Your task to perform on an android device: What's on my calendar today? Image 0: 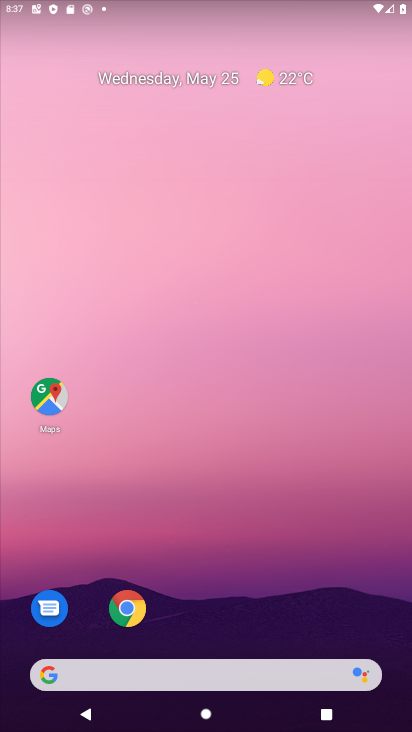
Step 0: drag from (230, 613) to (221, 184)
Your task to perform on an android device: What's on my calendar today? Image 1: 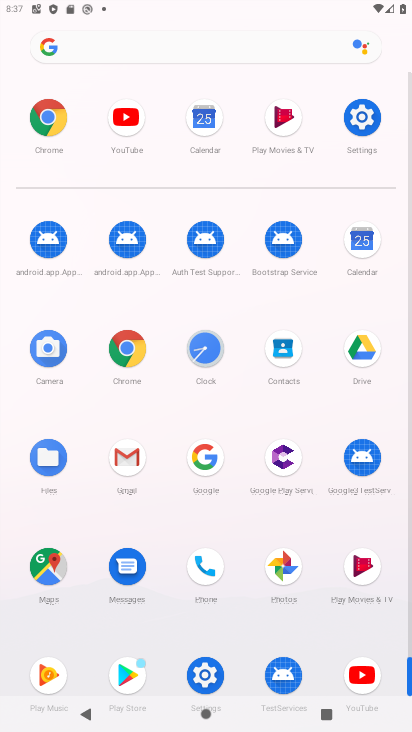
Step 1: click (363, 241)
Your task to perform on an android device: What's on my calendar today? Image 2: 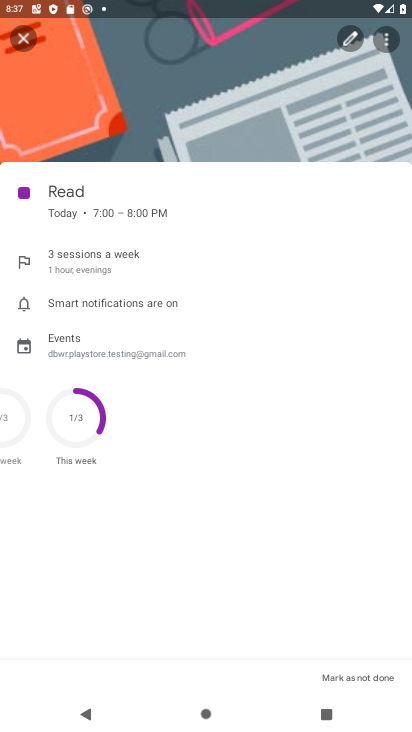
Step 2: click (34, 40)
Your task to perform on an android device: What's on my calendar today? Image 3: 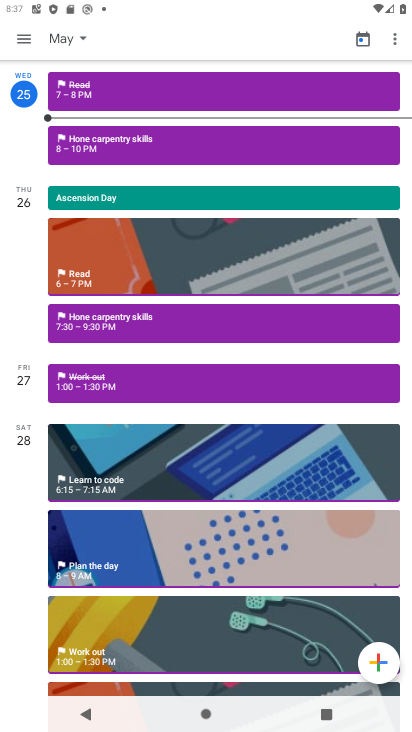
Step 3: click (121, 145)
Your task to perform on an android device: What's on my calendar today? Image 4: 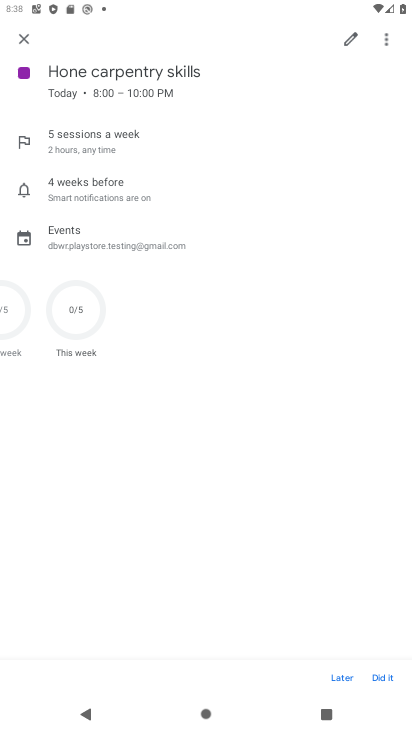
Step 4: task complete